Your task to perform on an android device: change text size in settings app Image 0: 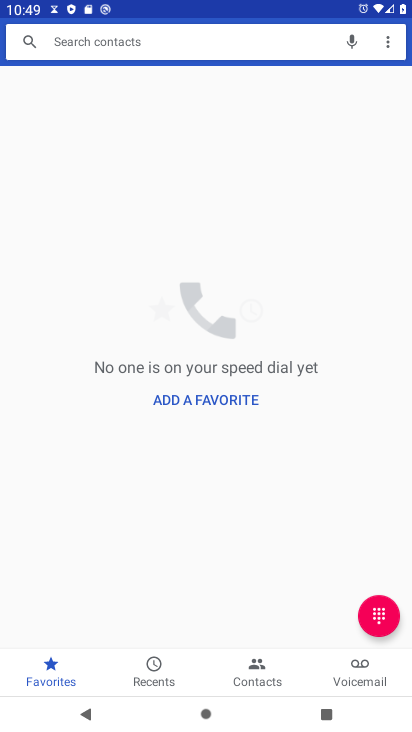
Step 0: press home button
Your task to perform on an android device: change text size in settings app Image 1: 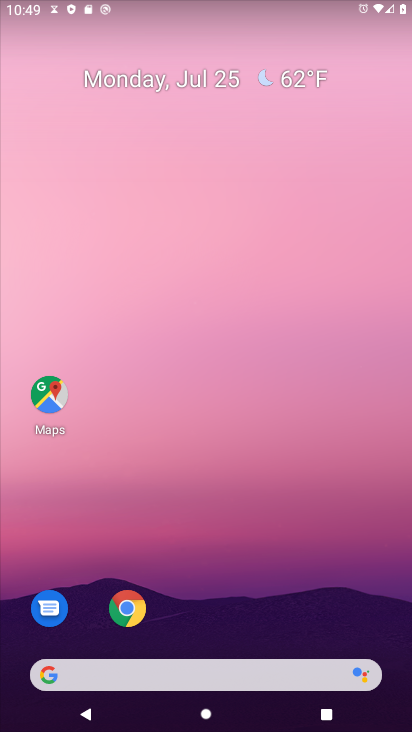
Step 1: drag from (204, 663) to (169, 163)
Your task to perform on an android device: change text size in settings app Image 2: 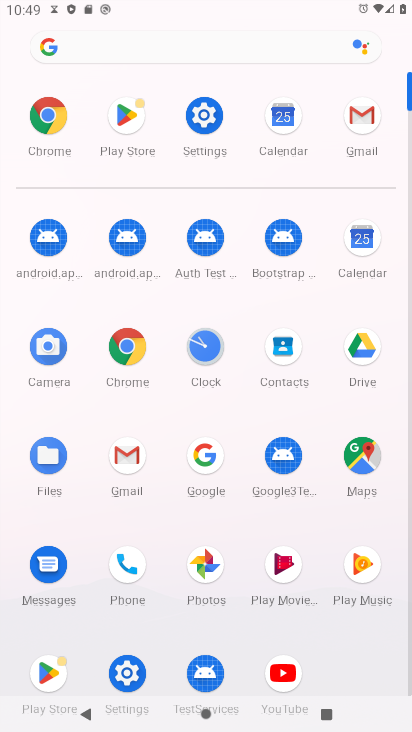
Step 2: click (205, 115)
Your task to perform on an android device: change text size in settings app Image 3: 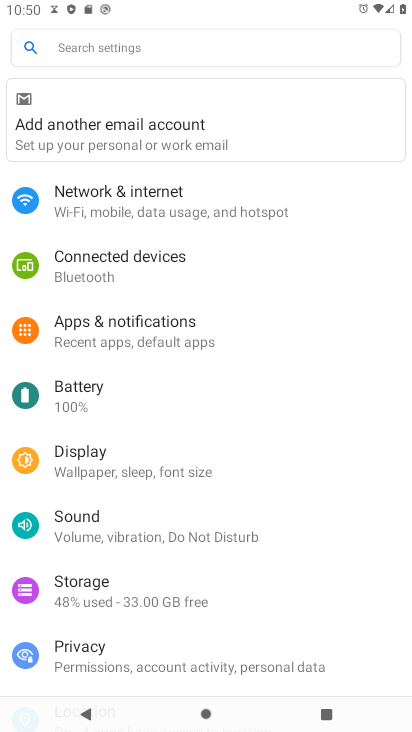
Step 3: drag from (159, 550) to (214, 417)
Your task to perform on an android device: change text size in settings app Image 4: 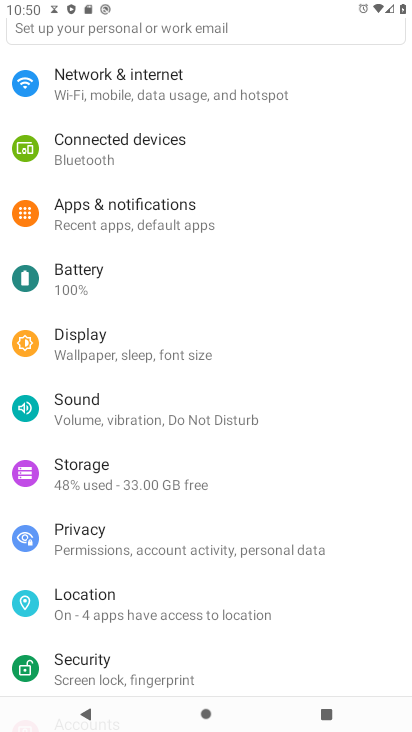
Step 4: drag from (171, 595) to (260, 491)
Your task to perform on an android device: change text size in settings app Image 5: 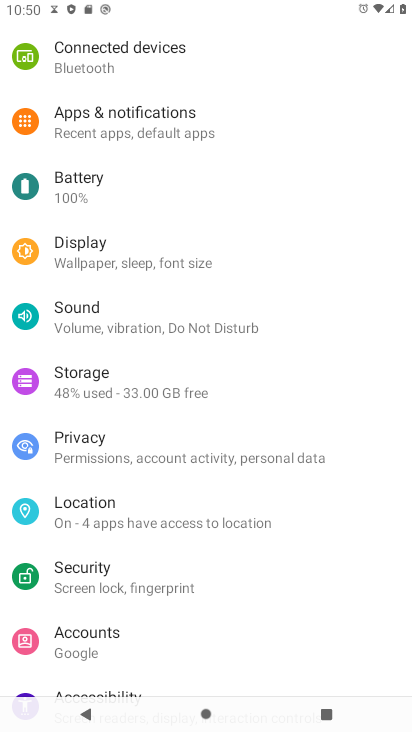
Step 5: drag from (201, 611) to (303, 478)
Your task to perform on an android device: change text size in settings app Image 6: 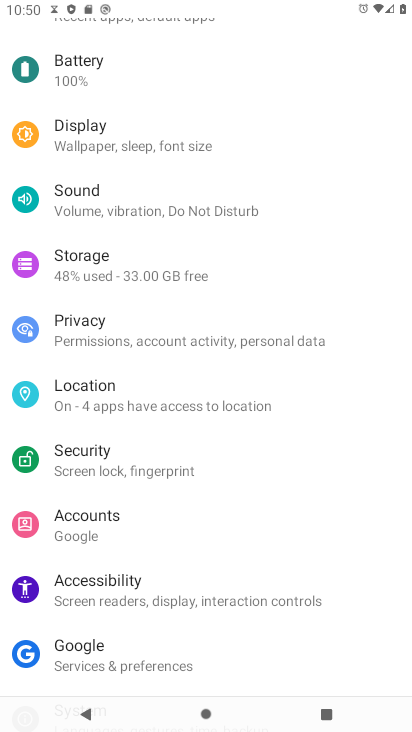
Step 6: drag from (185, 630) to (259, 532)
Your task to perform on an android device: change text size in settings app Image 7: 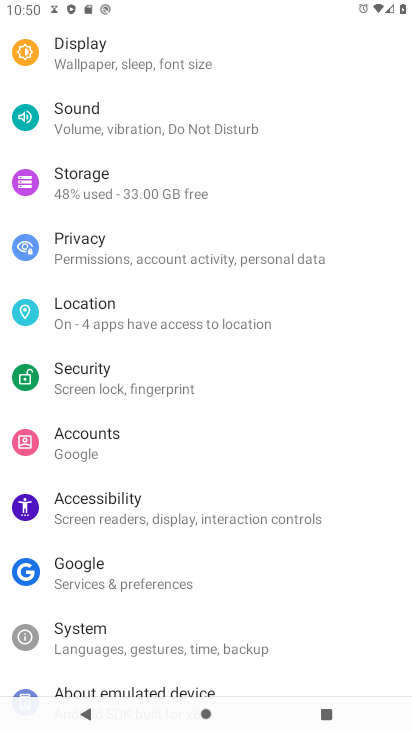
Step 7: click (268, 523)
Your task to perform on an android device: change text size in settings app Image 8: 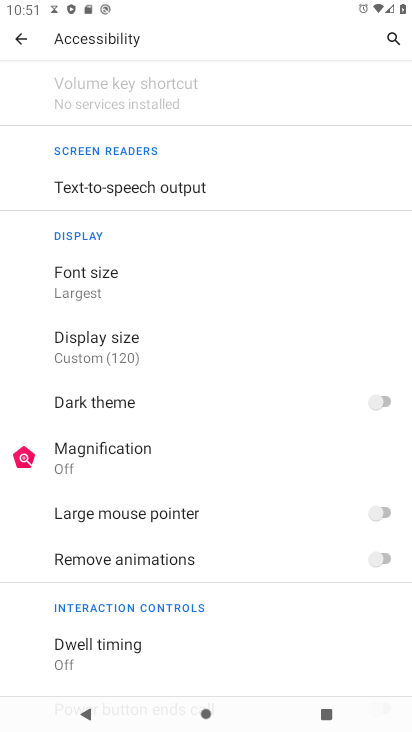
Step 8: click (108, 304)
Your task to perform on an android device: change text size in settings app Image 9: 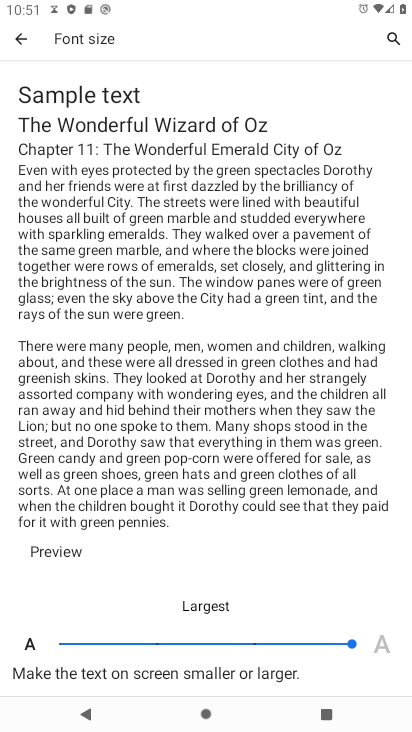
Step 9: click (267, 647)
Your task to perform on an android device: change text size in settings app Image 10: 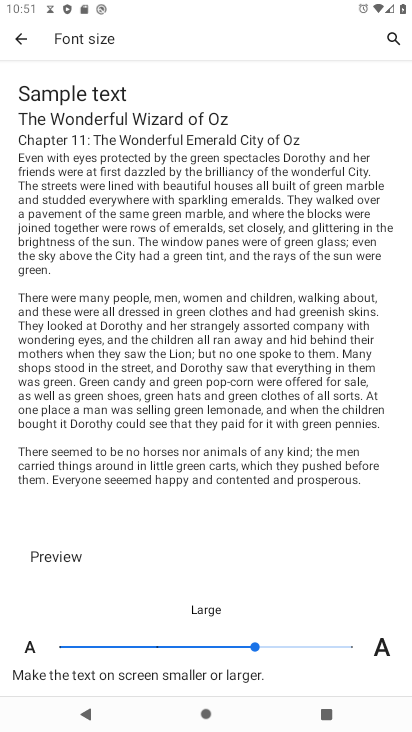
Step 10: task complete